Your task to perform on an android device: check battery use Image 0: 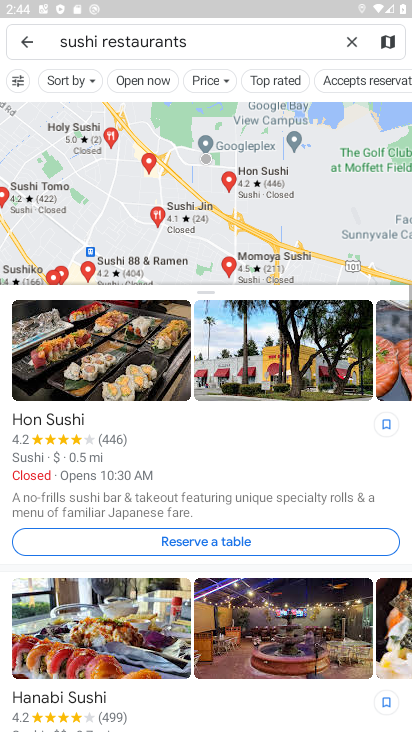
Step 0: press home button
Your task to perform on an android device: check battery use Image 1: 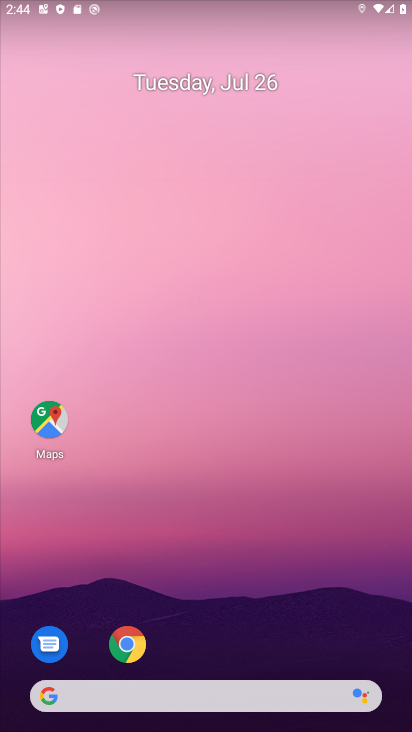
Step 1: click (319, 16)
Your task to perform on an android device: check battery use Image 2: 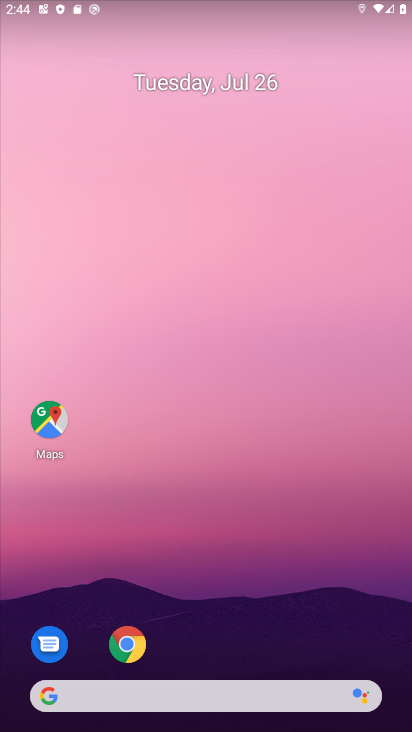
Step 2: press home button
Your task to perform on an android device: check battery use Image 3: 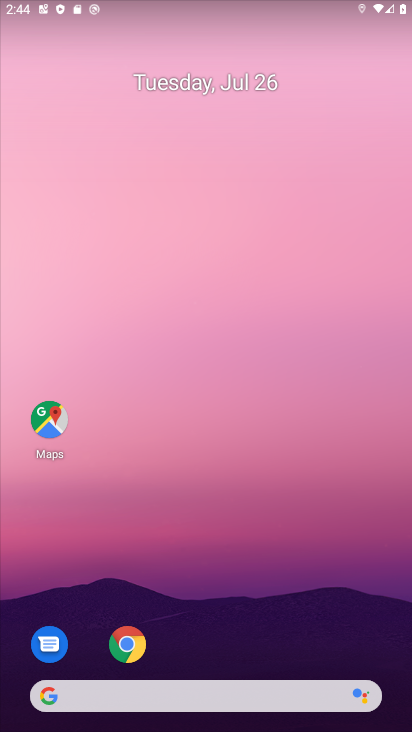
Step 3: drag from (288, 586) to (317, 101)
Your task to perform on an android device: check battery use Image 4: 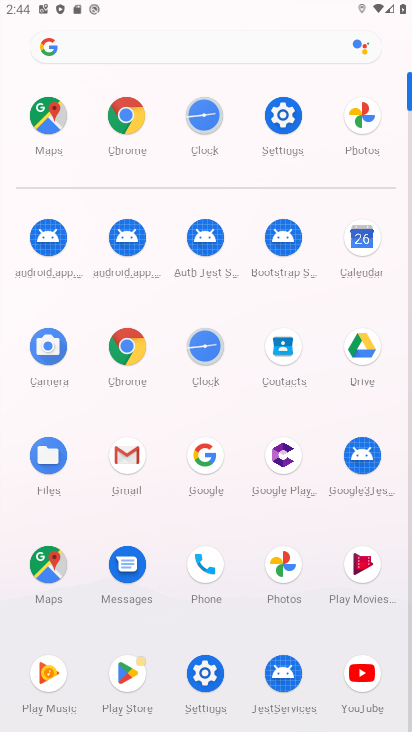
Step 4: click (276, 109)
Your task to perform on an android device: check battery use Image 5: 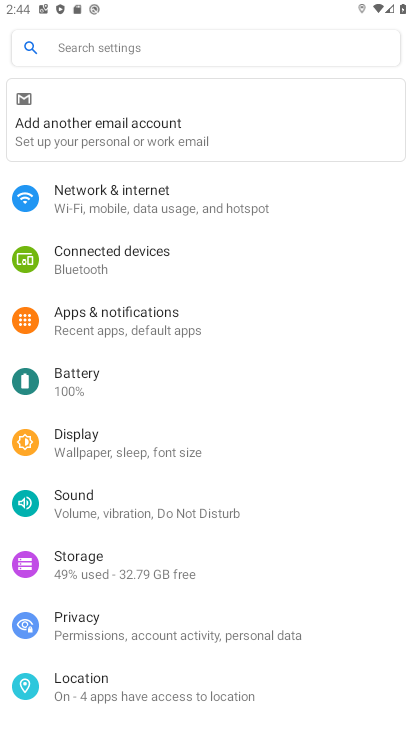
Step 5: click (84, 382)
Your task to perform on an android device: check battery use Image 6: 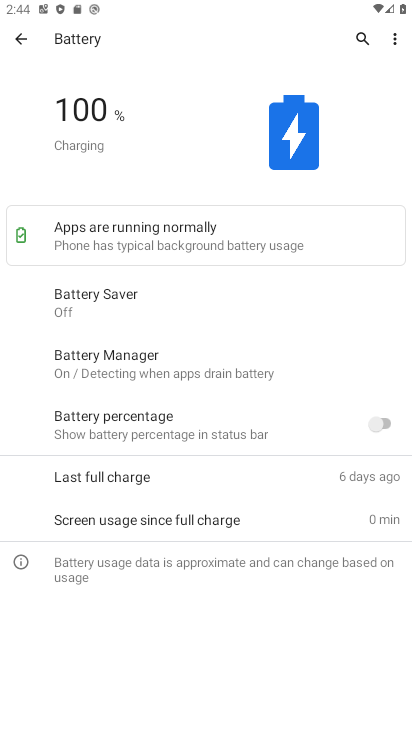
Step 6: task complete